Your task to perform on an android device: View the shopping cart on amazon.com. Add "asus rog" to the cart on amazon.com Image 0: 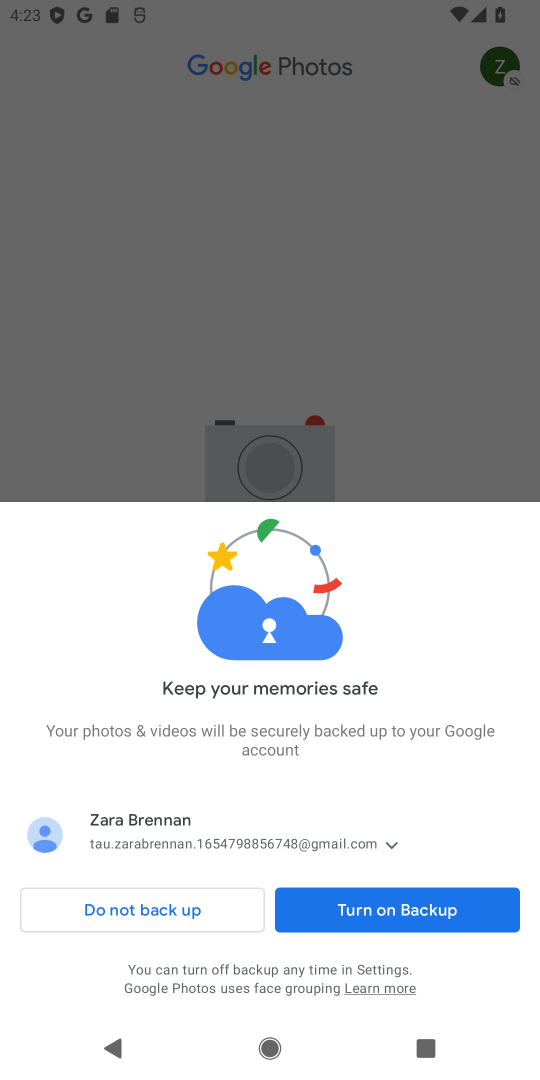
Step 0: press home button
Your task to perform on an android device: View the shopping cart on amazon.com. Add "asus rog" to the cart on amazon.com Image 1: 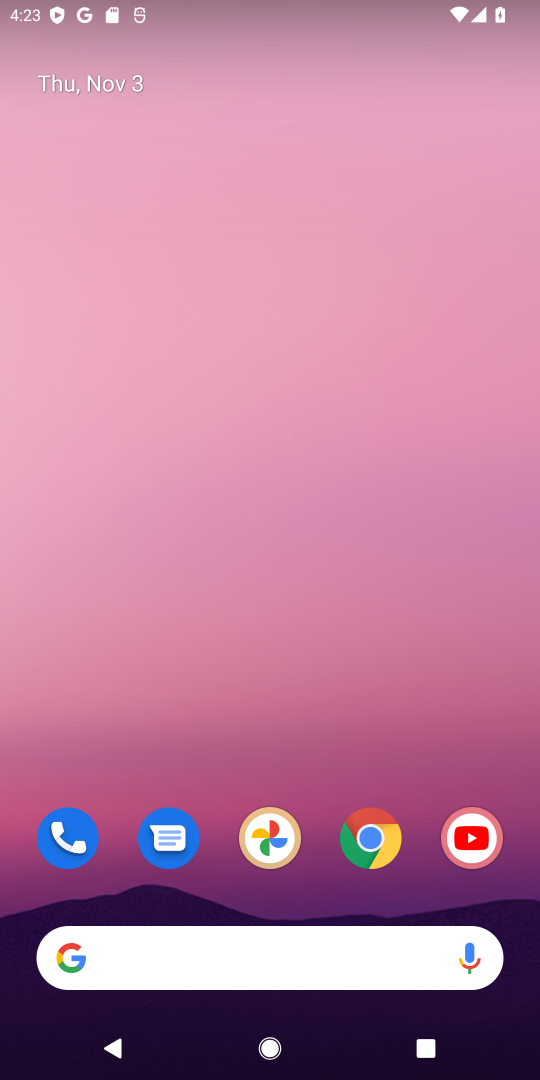
Step 1: click (371, 849)
Your task to perform on an android device: View the shopping cart on amazon.com. Add "asus rog" to the cart on amazon.com Image 2: 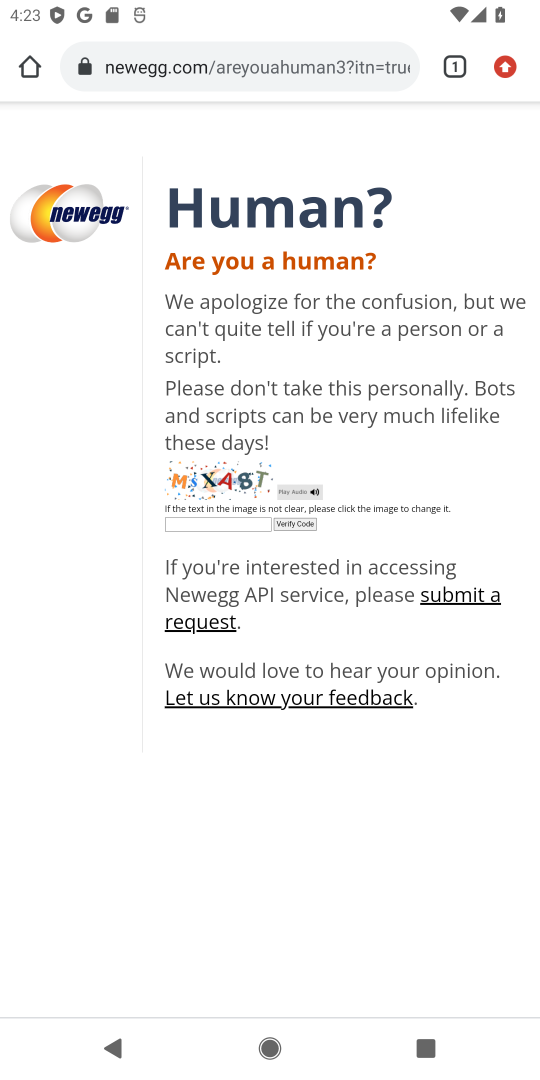
Step 2: click (272, 62)
Your task to perform on an android device: View the shopping cart on amazon.com. Add "asus rog" to the cart on amazon.com Image 3: 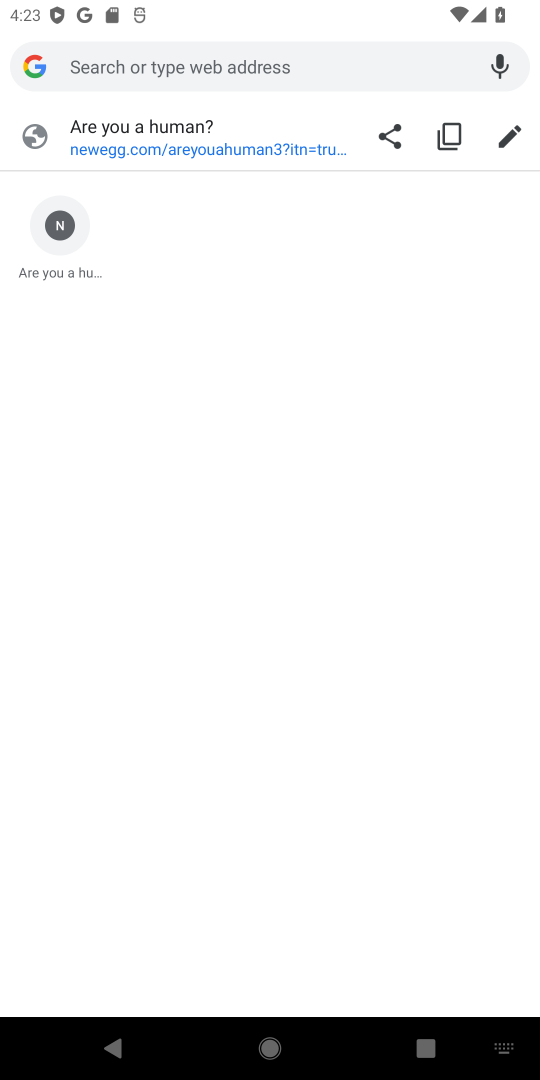
Step 3: type "amazon.com"
Your task to perform on an android device: View the shopping cart on amazon.com. Add "asus rog" to the cart on amazon.com Image 4: 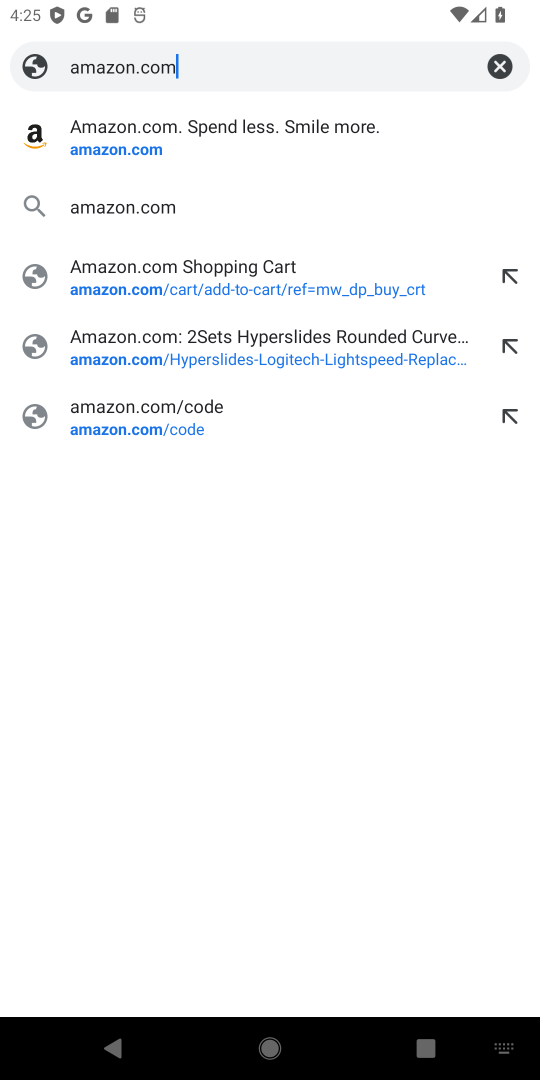
Step 4: click (188, 136)
Your task to perform on an android device: View the shopping cart on amazon.com. Add "asus rog" to the cart on amazon.com Image 5: 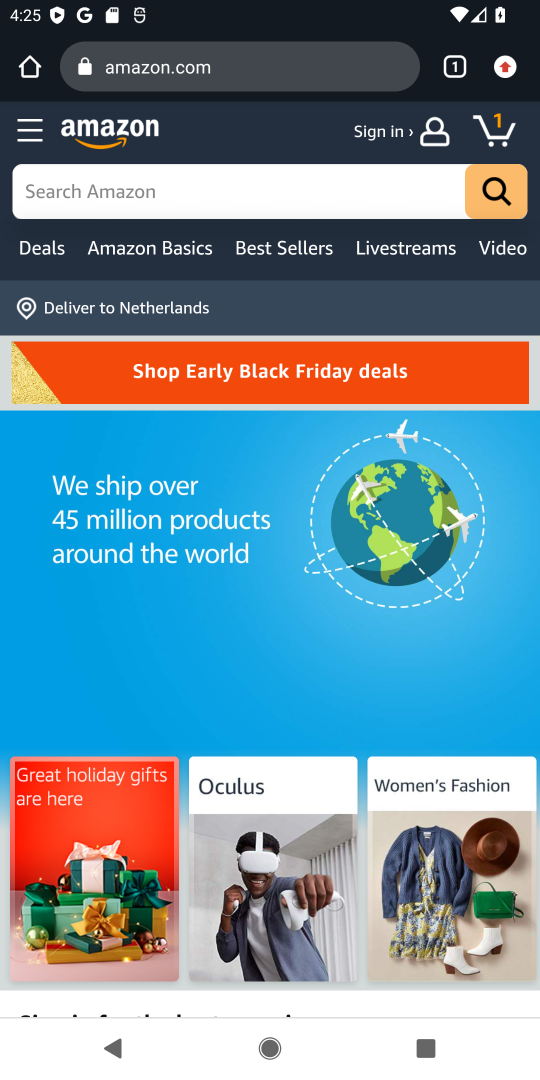
Step 5: click (138, 193)
Your task to perform on an android device: View the shopping cart on amazon.com. Add "asus rog" to the cart on amazon.com Image 6: 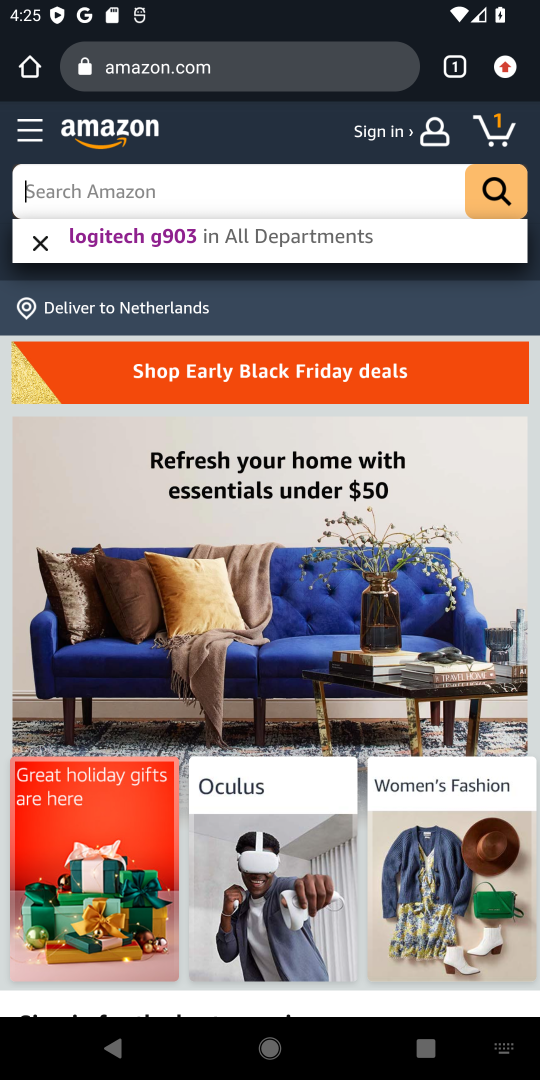
Step 6: type "asus rog"
Your task to perform on an android device: View the shopping cart on amazon.com. Add "asus rog" to the cart on amazon.com Image 7: 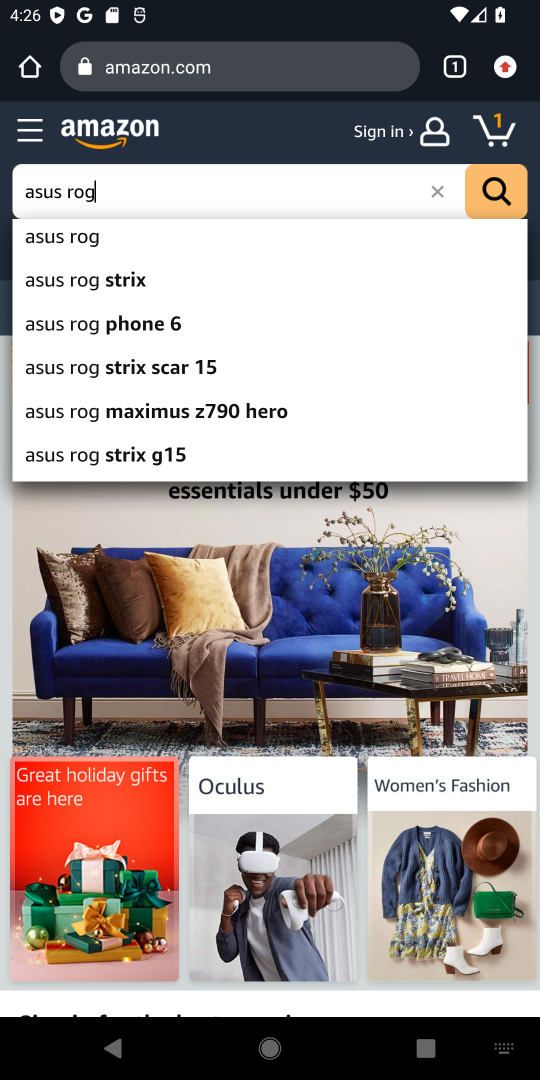
Step 7: click (98, 237)
Your task to perform on an android device: View the shopping cart on amazon.com. Add "asus rog" to the cart on amazon.com Image 8: 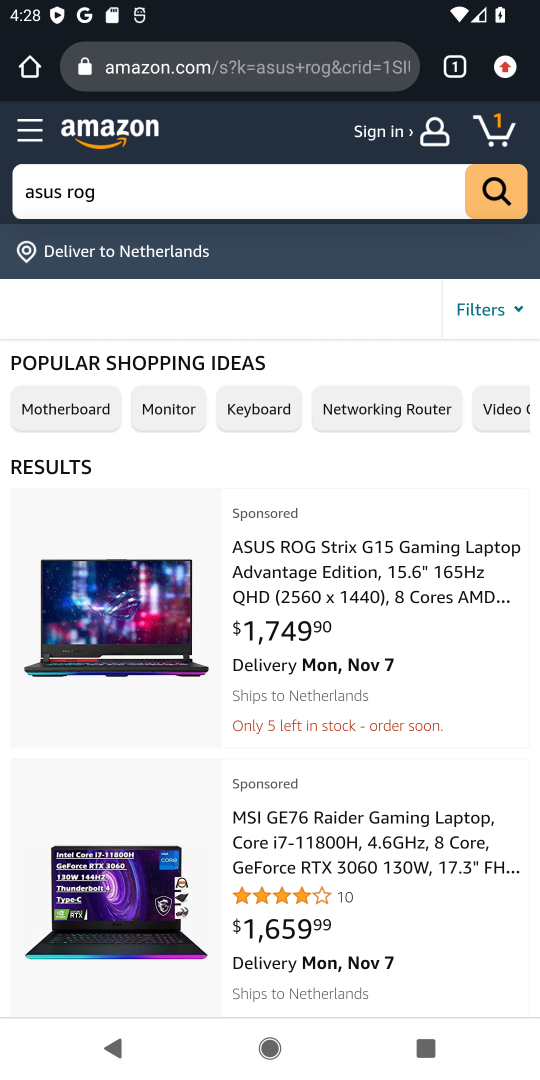
Step 8: click (156, 626)
Your task to perform on an android device: View the shopping cart on amazon.com. Add "asus rog" to the cart on amazon.com Image 9: 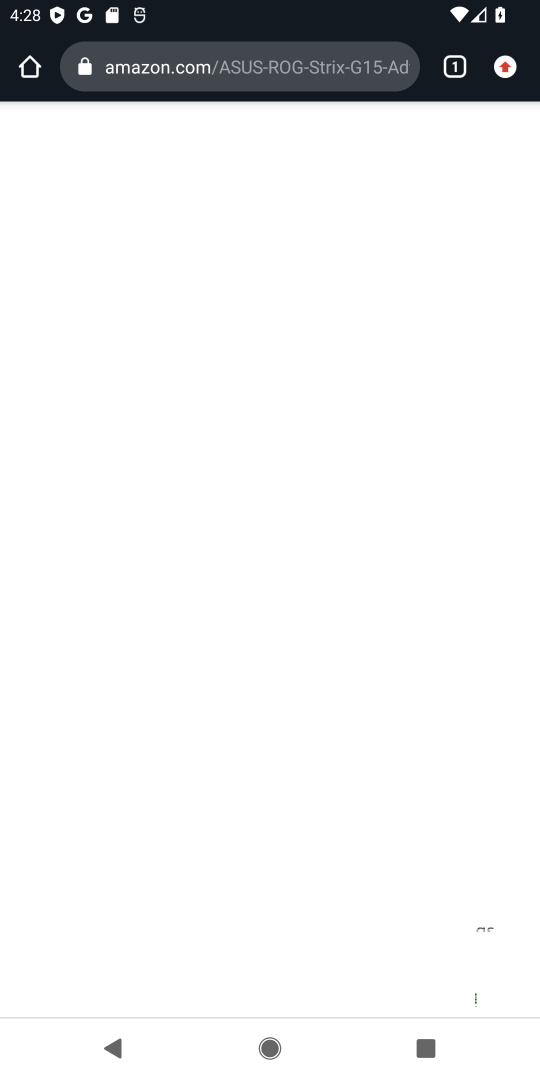
Step 9: task complete